Your task to perform on an android device: Is it going to rain tomorrow? Image 0: 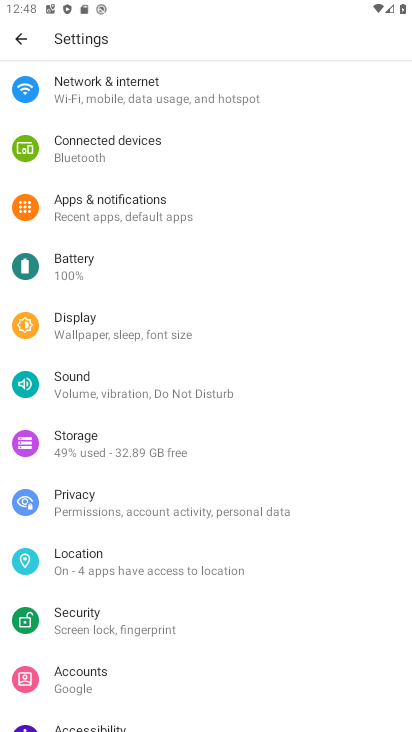
Step 0: press home button
Your task to perform on an android device: Is it going to rain tomorrow? Image 1: 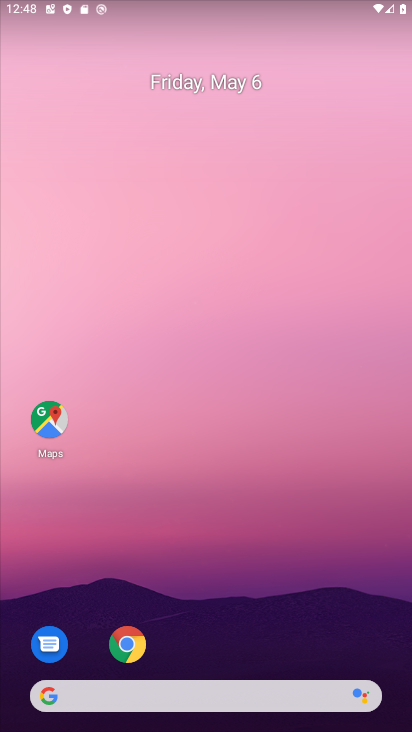
Step 1: click (120, 644)
Your task to perform on an android device: Is it going to rain tomorrow? Image 2: 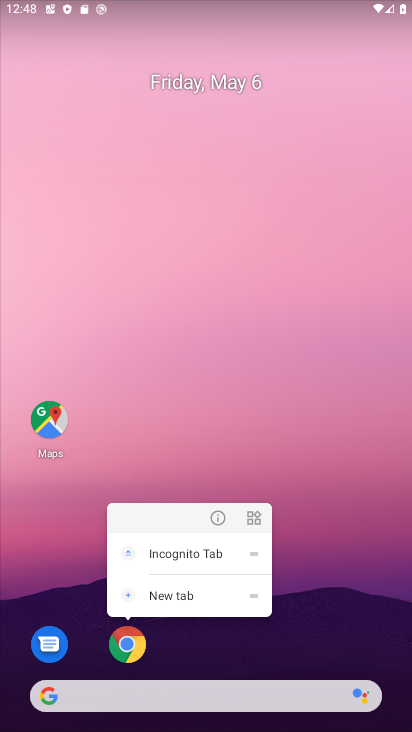
Step 2: drag from (211, 689) to (245, 116)
Your task to perform on an android device: Is it going to rain tomorrow? Image 3: 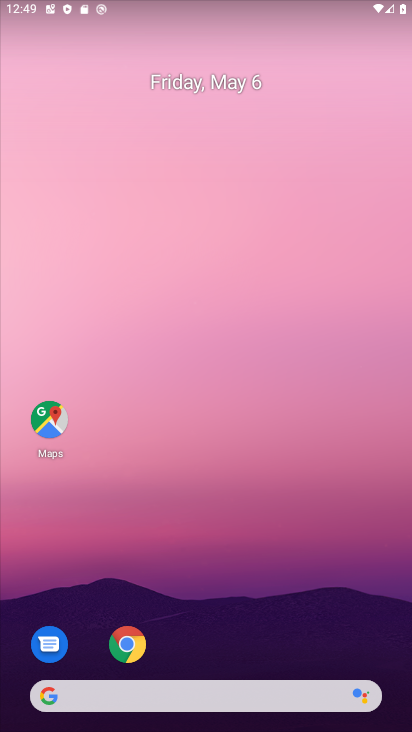
Step 3: drag from (268, 625) to (317, 69)
Your task to perform on an android device: Is it going to rain tomorrow? Image 4: 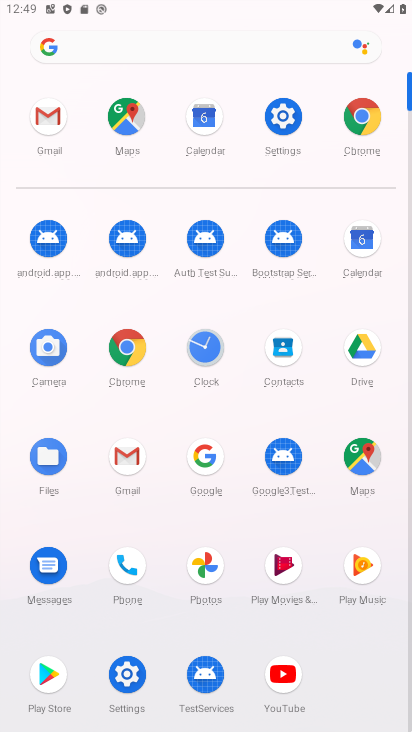
Step 4: click (120, 345)
Your task to perform on an android device: Is it going to rain tomorrow? Image 5: 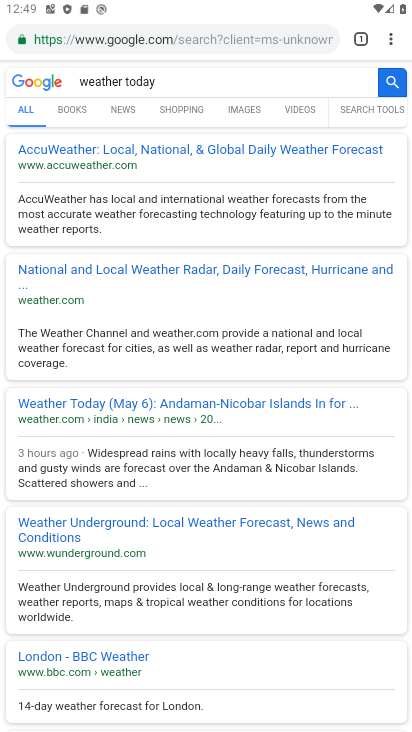
Step 5: click (205, 74)
Your task to perform on an android device: Is it going to rain tomorrow? Image 6: 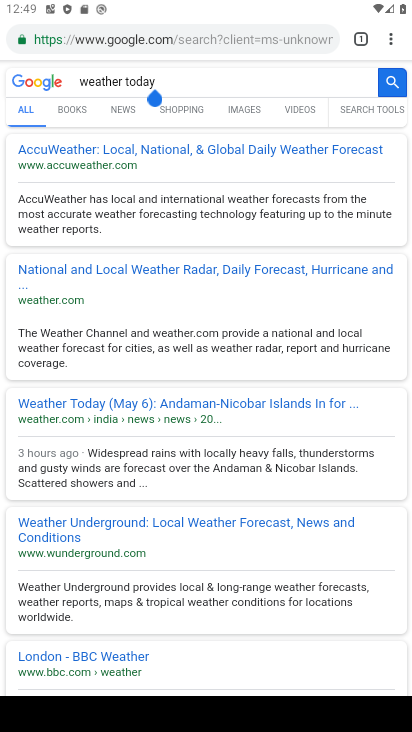
Step 6: click (269, 70)
Your task to perform on an android device: Is it going to rain tomorrow? Image 7: 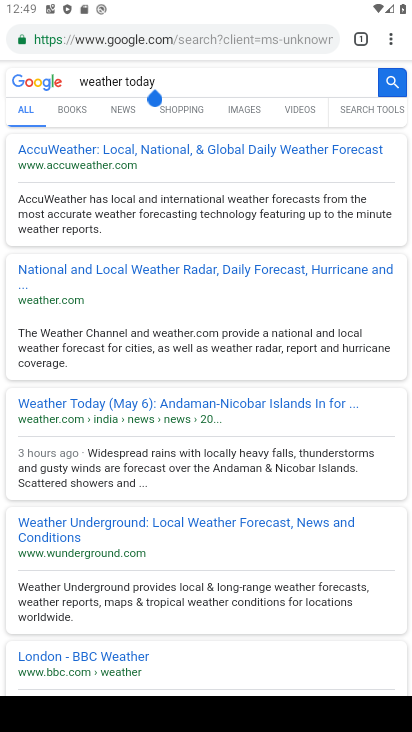
Step 7: click (233, 39)
Your task to perform on an android device: Is it going to rain tomorrow? Image 8: 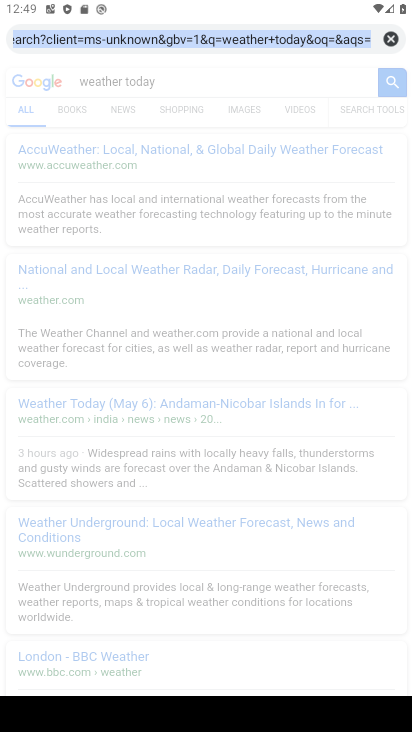
Step 8: click (392, 34)
Your task to perform on an android device: Is it going to rain tomorrow? Image 9: 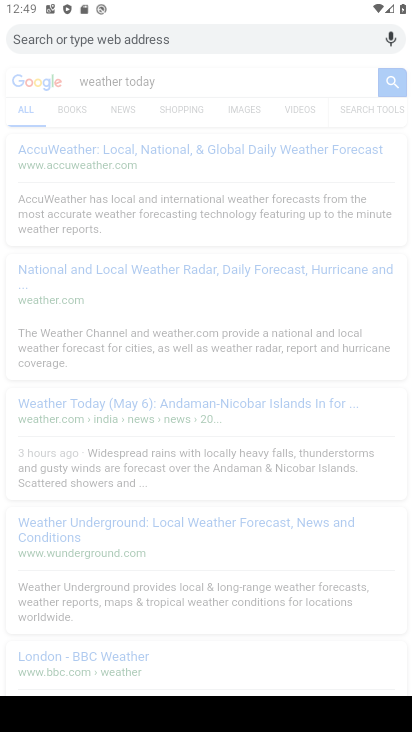
Step 9: type "rain today"
Your task to perform on an android device: Is it going to rain tomorrow? Image 10: 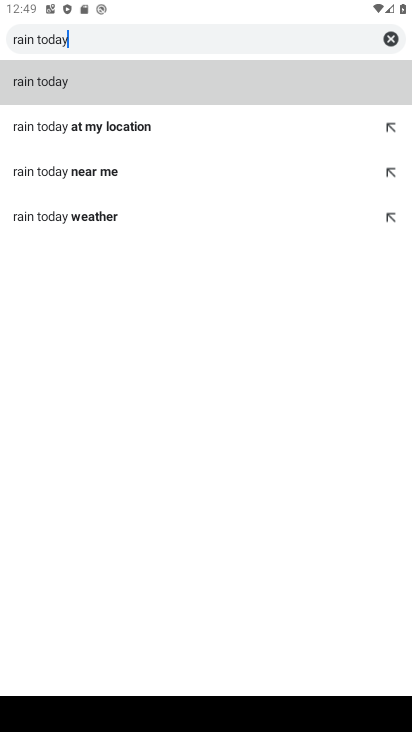
Step 10: click (227, 70)
Your task to perform on an android device: Is it going to rain tomorrow? Image 11: 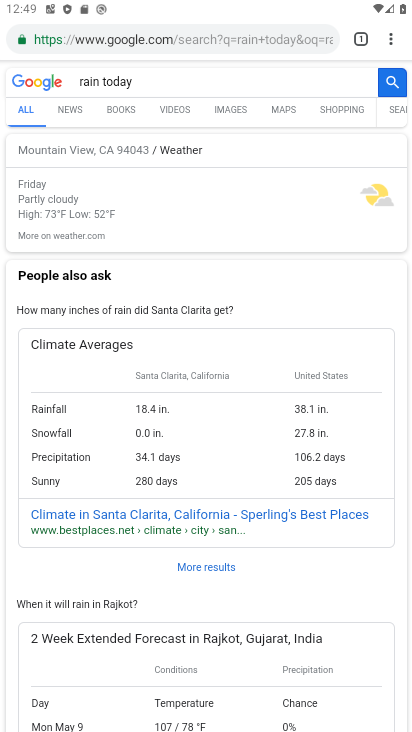
Step 11: task complete